Your task to perform on an android device: allow notifications from all sites in the chrome app Image 0: 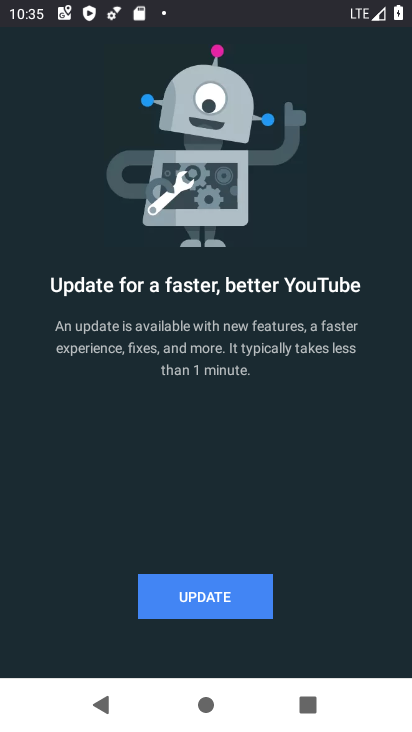
Step 0: press home button
Your task to perform on an android device: allow notifications from all sites in the chrome app Image 1: 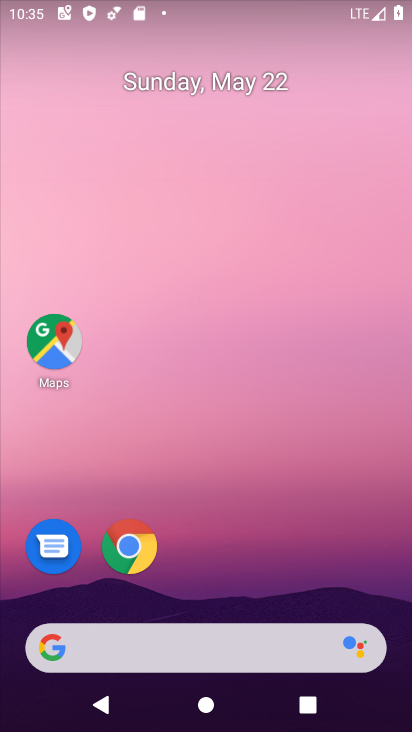
Step 1: click (127, 540)
Your task to perform on an android device: allow notifications from all sites in the chrome app Image 2: 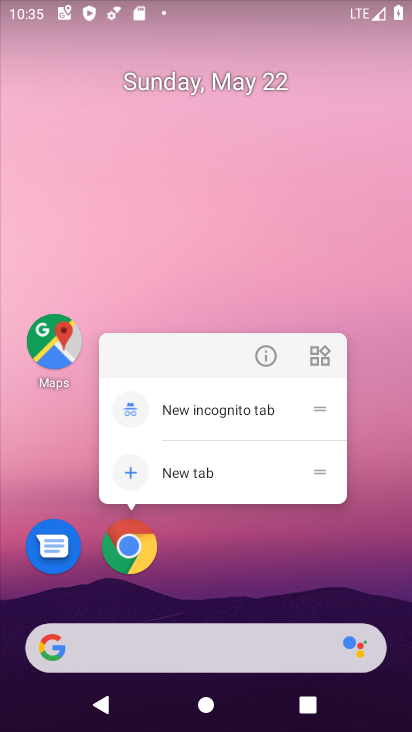
Step 2: click (127, 549)
Your task to perform on an android device: allow notifications from all sites in the chrome app Image 3: 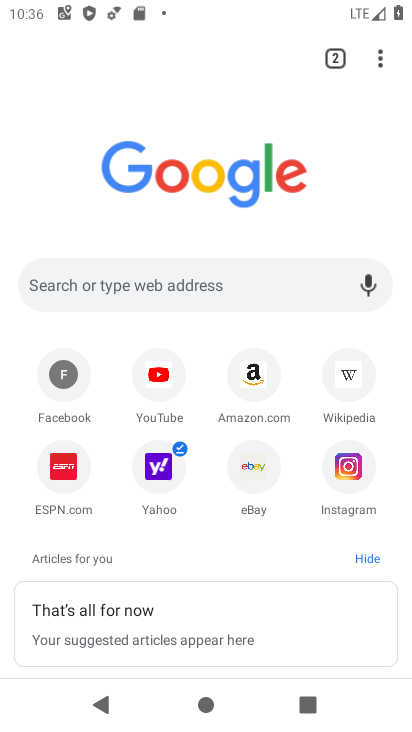
Step 3: click (377, 65)
Your task to perform on an android device: allow notifications from all sites in the chrome app Image 4: 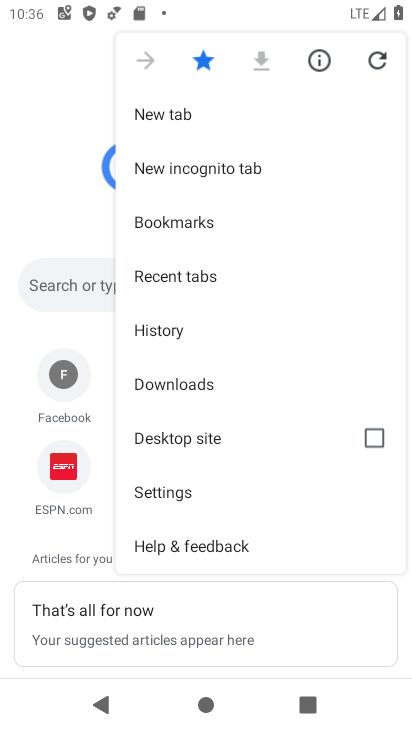
Step 4: click (174, 489)
Your task to perform on an android device: allow notifications from all sites in the chrome app Image 5: 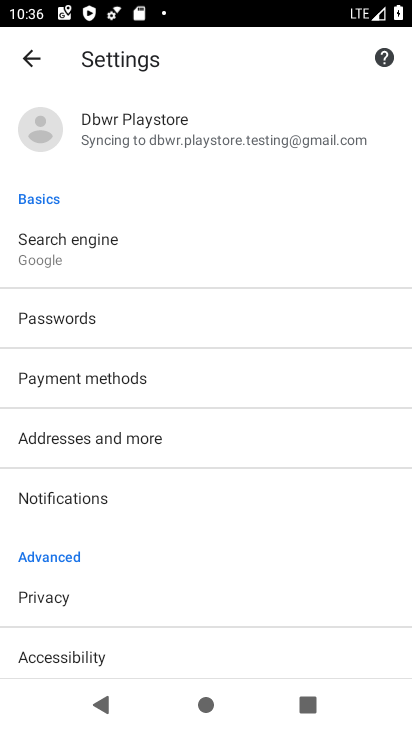
Step 5: drag from (152, 591) to (149, 469)
Your task to perform on an android device: allow notifications from all sites in the chrome app Image 6: 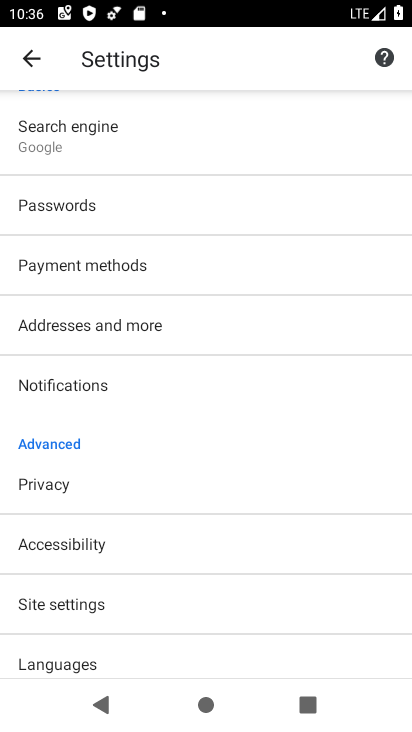
Step 6: click (66, 397)
Your task to perform on an android device: allow notifications from all sites in the chrome app Image 7: 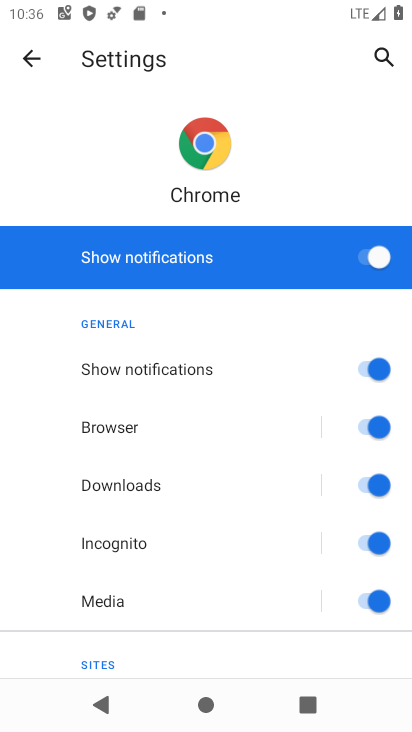
Step 7: task complete